Your task to perform on an android device: turn off notifications in google photos Image 0: 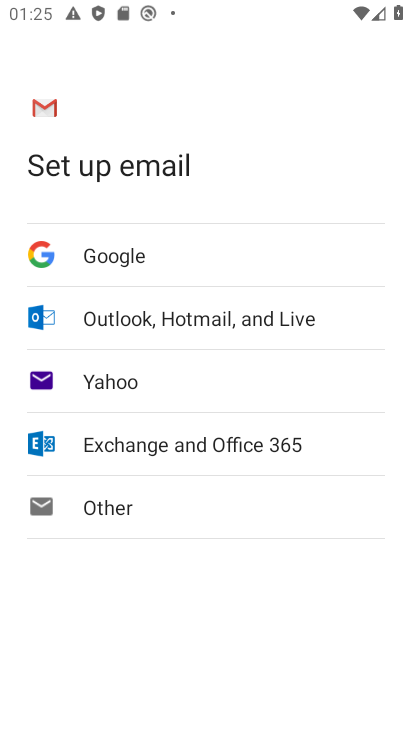
Step 0: press home button
Your task to perform on an android device: turn off notifications in google photos Image 1: 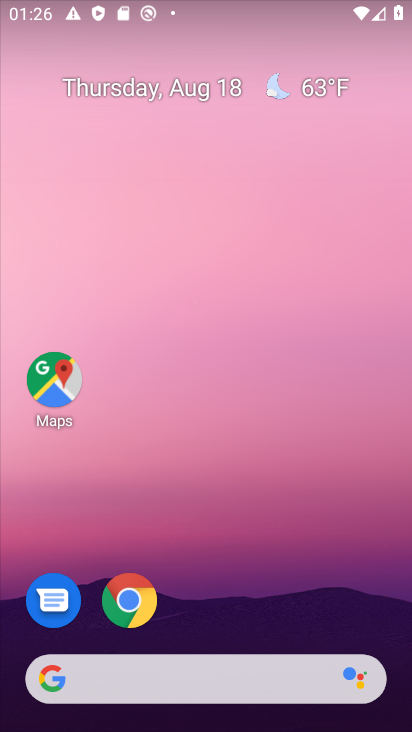
Step 1: drag from (231, 592) to (206, 188)
Your task to perform on an android device: turn off notifications in google photos Image 2: 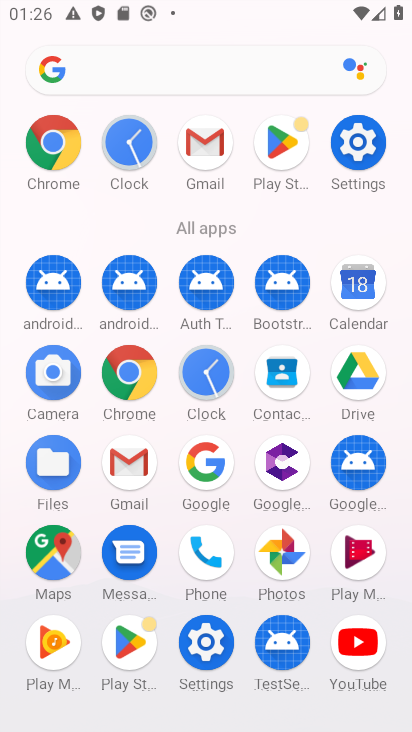
Step 2: click (283, 552)
Your task to perform on an android device: turn off notifications in google photos Image 3: 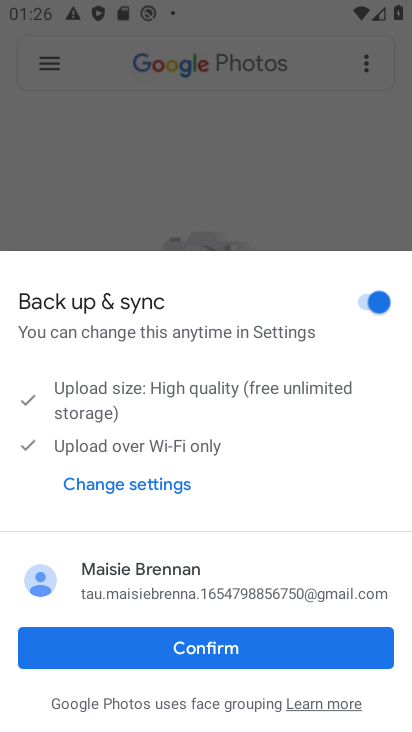
Step 3: click (218, 651)
Your task to perform on an android device: turn off notifications in google photos Image 4: 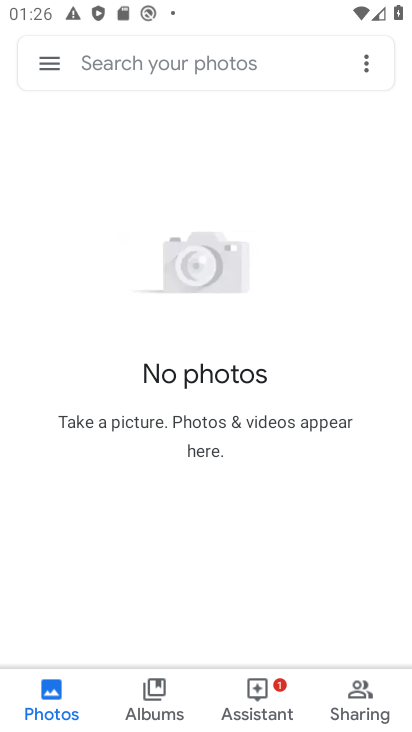
Step 4: click (50, 55)
Your task to perform on an android device: turn off notifications in google photos Image 5: 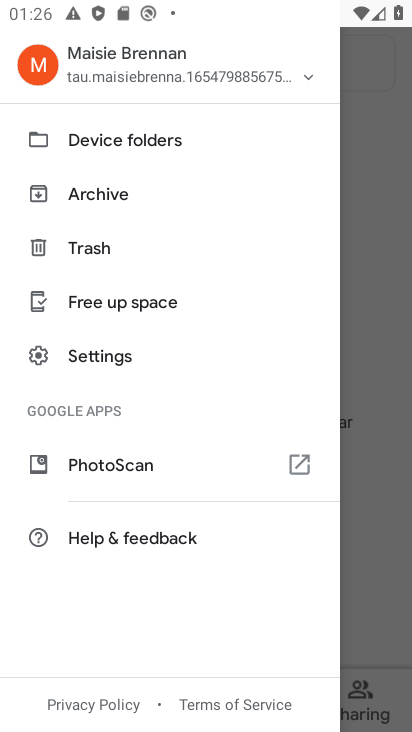
Step 5: click (85, 352)
Your task to perform on an android device: turn off notifications in google photos Image 6: 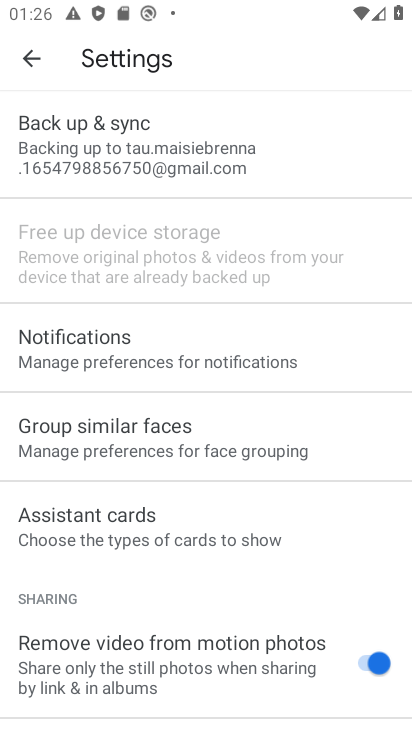
Step 6: click (85, 335)
Your task to perform on an android device: turn off notifications in google photos Image 7: 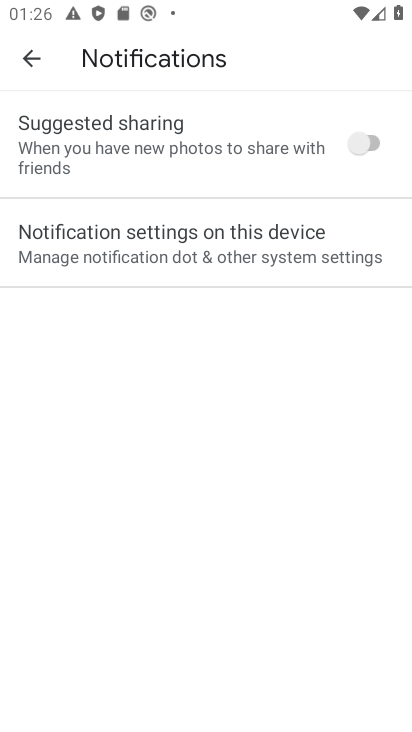
Step 7: click (162, 232)
Your task to perform on an android device: turn off notifications in google photos Image 8: 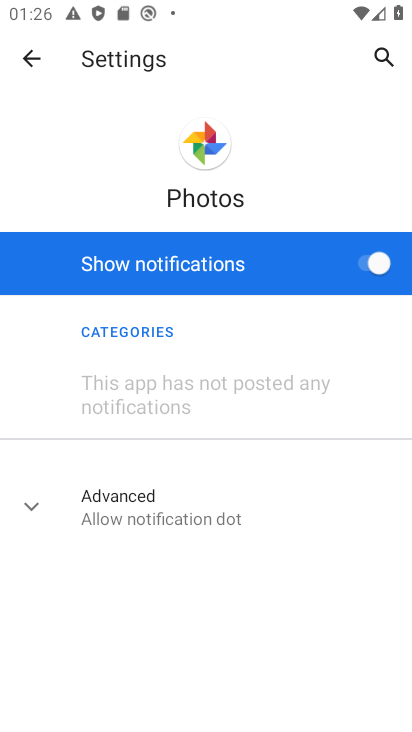
Step 8: click (375, 250)
Your task to perform on an android device: turn off notifications in google photos Image 9: 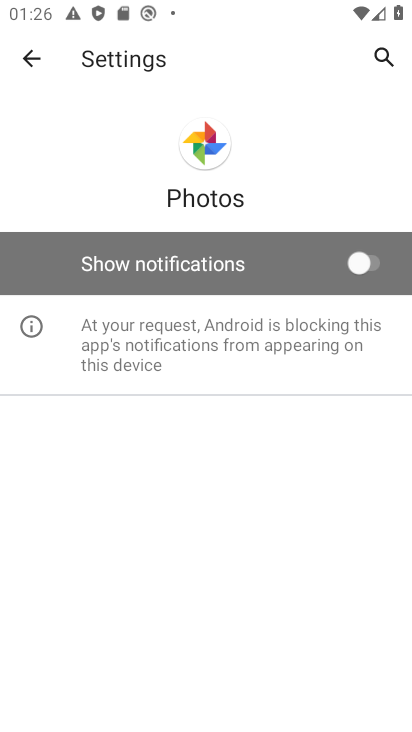
Step 9: task complete